Your task to perform on an android device: change the clock display to show seconds Image 0: 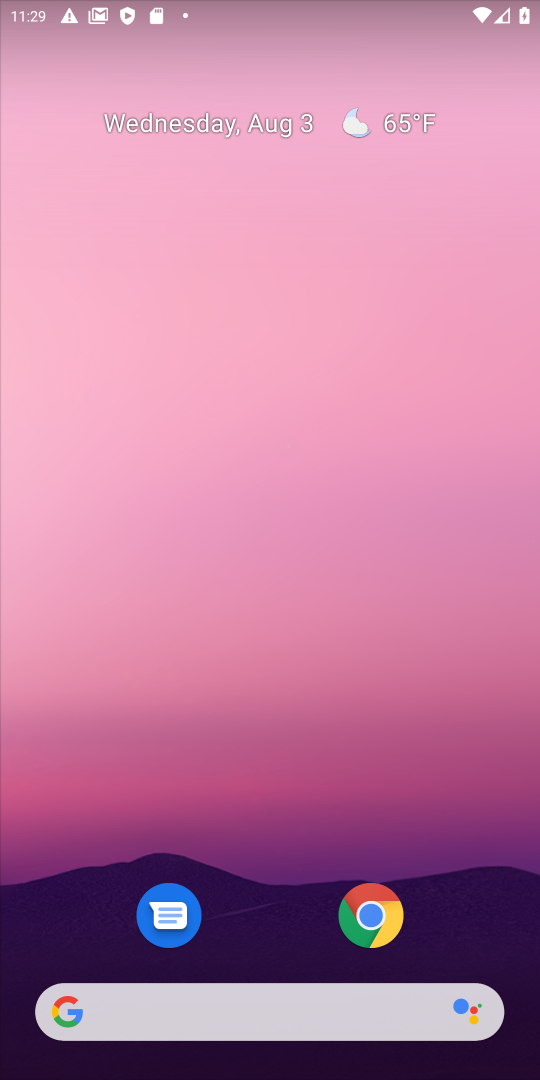
Step 0: drag from (280, 832) to (280, 16)
Your task to perform on an android device: change the clock display to show seconds Image 1: 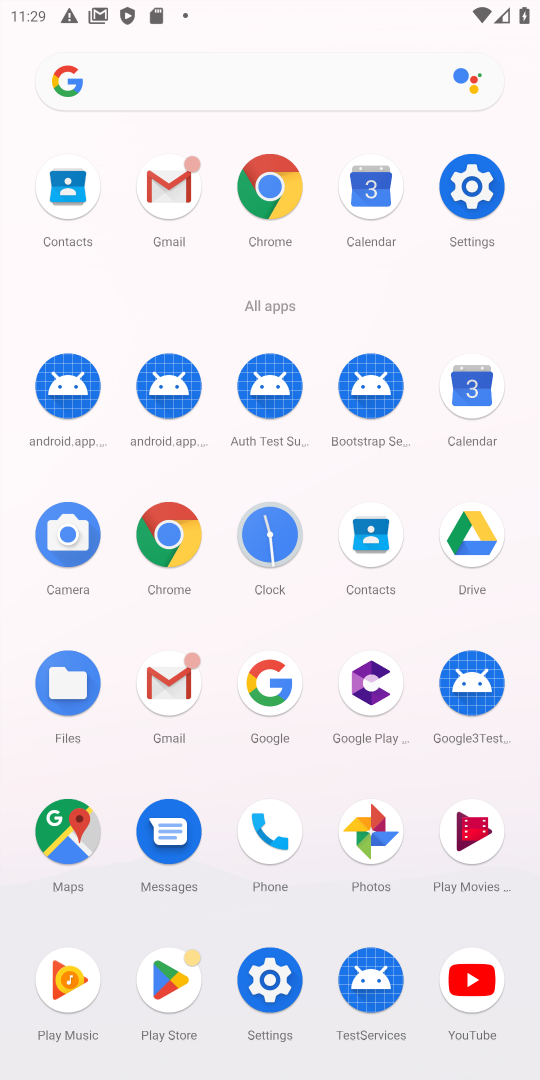
Step 1: click (270, 543)
Your task to perform on an android device: change the clock display to show seconds Image 2: 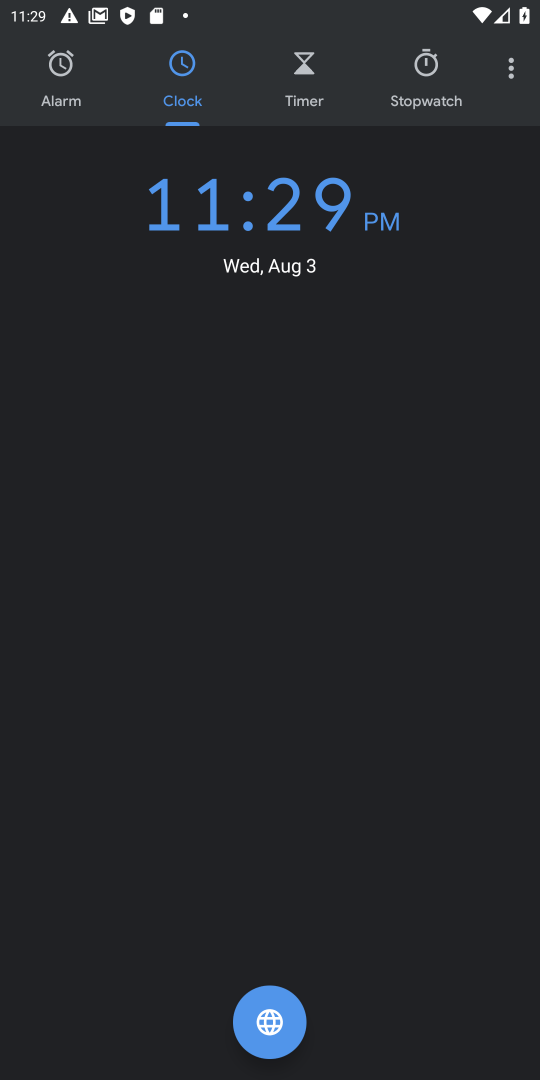
Step 2: click (510, 74)
Your task to perform on an android device: change the clock display to show seconds Image 3: 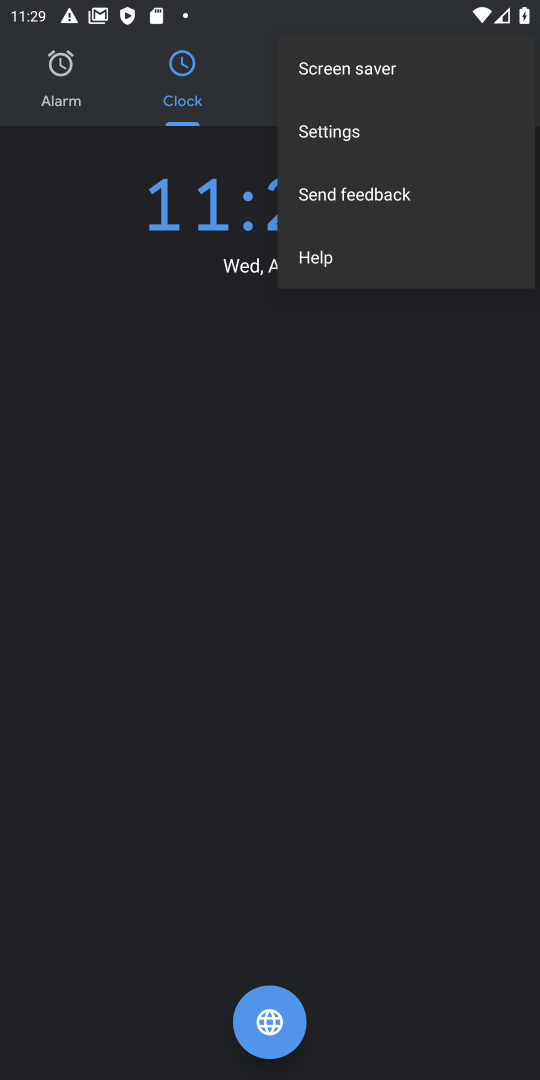
Step 3: click (295, 132)
Your task to perform on an android device: change the clock display to show seconds Image 4: 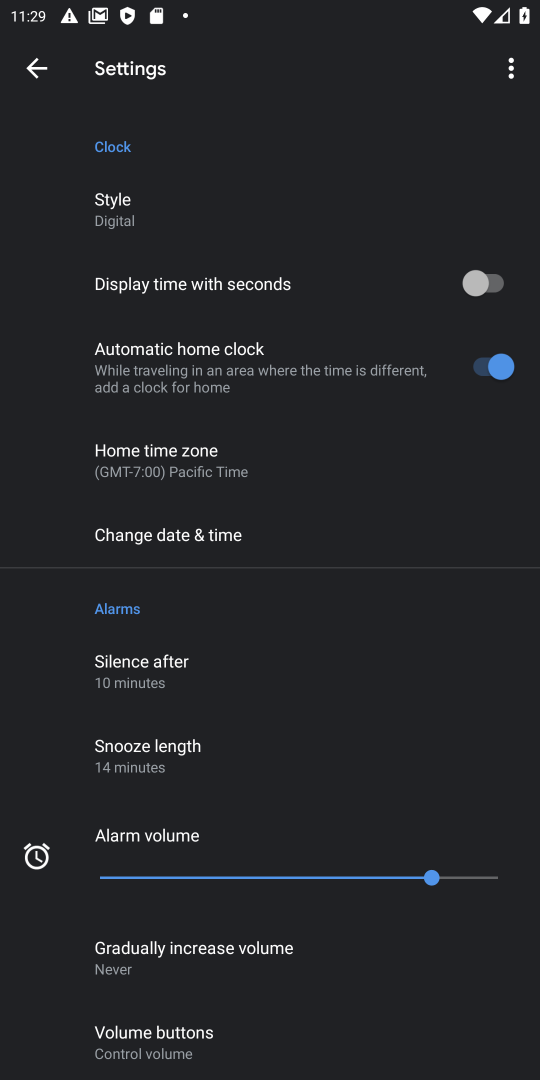
Step 4: click (501, 294)
Your task to perform on an android device: change the clock display to show seconds Image 5: 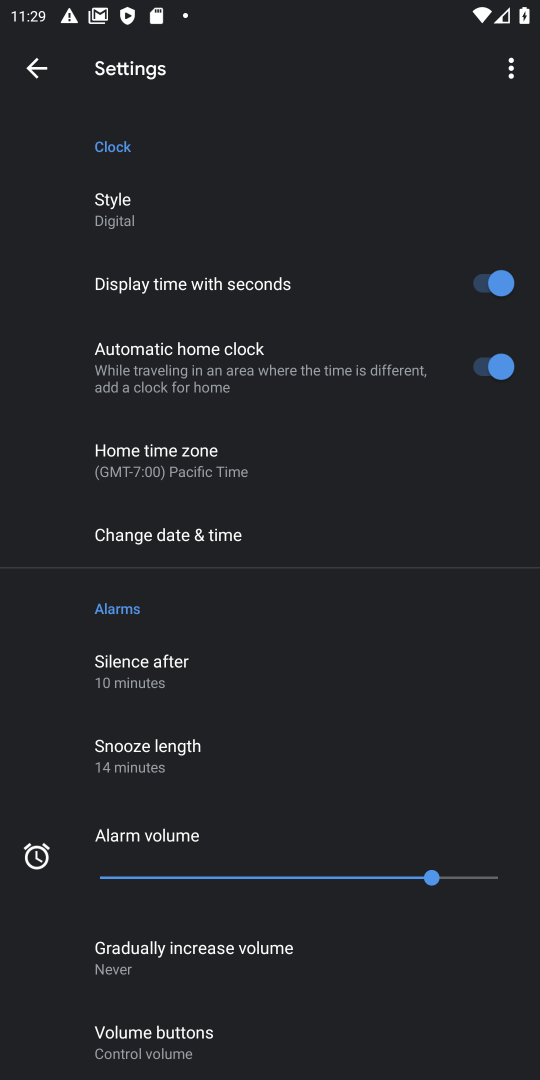
Step 5: task complete